Your task to perform on an android device: See recent photos Image 0: 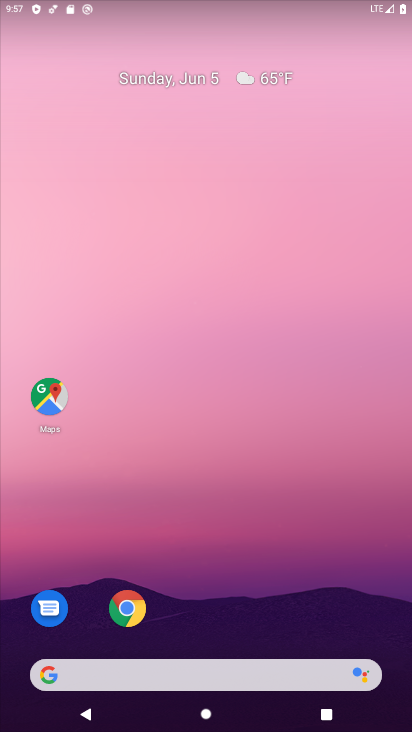
Step 0: drag from (248, 666) to (254, 565)
Your task to perform on an android device: See recent photos Image 1: 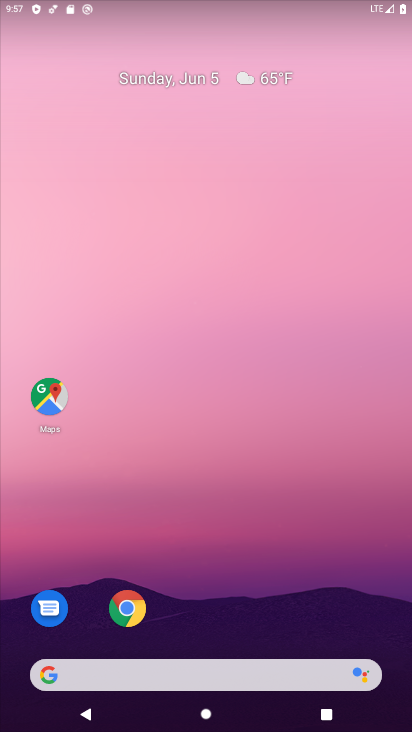
Step 1: drag from (209, 671) to (184, 193)
Your task to perform on an android device: See recent photos Image 2: 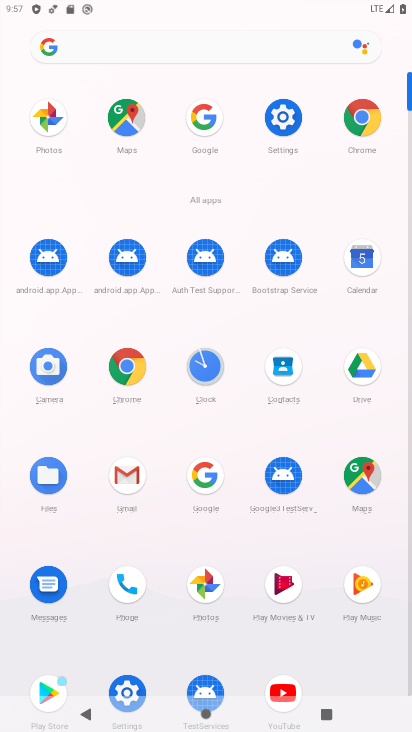
Step 2: click (204, 582)
Your task to perform on an android device: See recent photos Image 3: 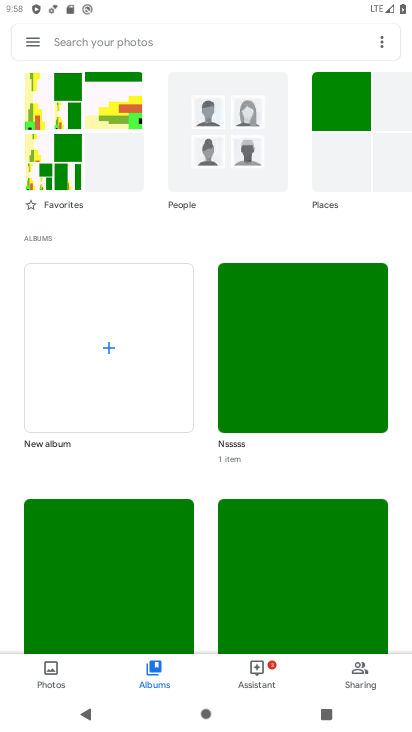
Step 3: click (45, 672)
Your task to perform on an android device: See recent photos Image 4: 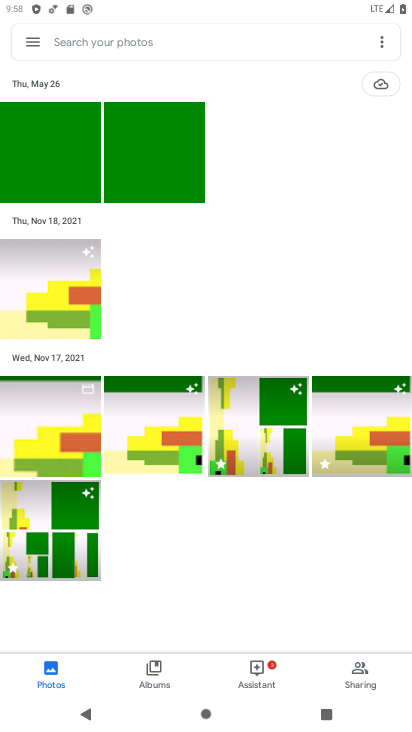
Step 4: task complete